Your task to perform on an android device: toggle location history Image 0: 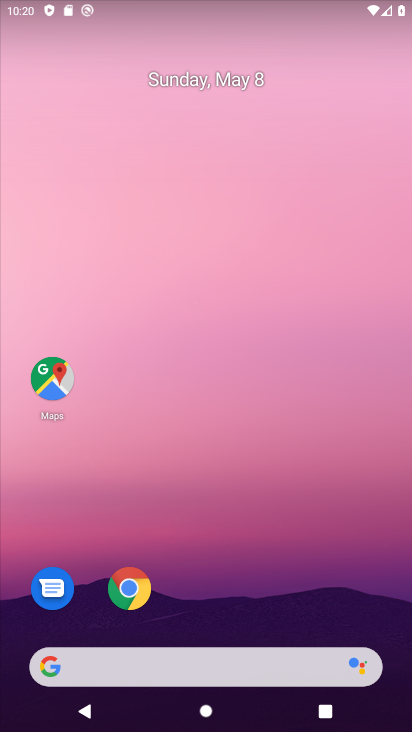
Step 0: drag from (289, 579) to (229, 53)
Your task to perform on an android device: toggle location history Image 1: 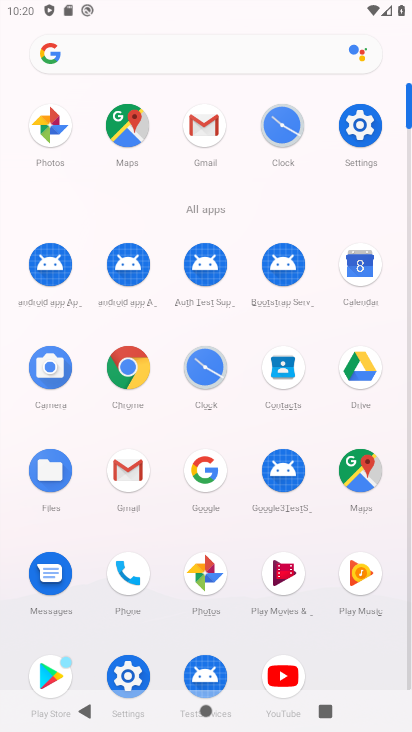
Step 1: click (365, 122)
Your task to perform on an android device: toggle location history Image 2: 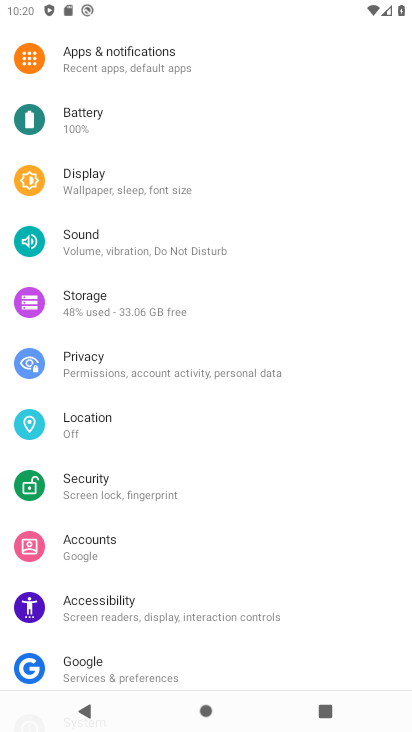
Step 2: click (131, 439)
Your task to perform on an android device: toggle location history Image 3: 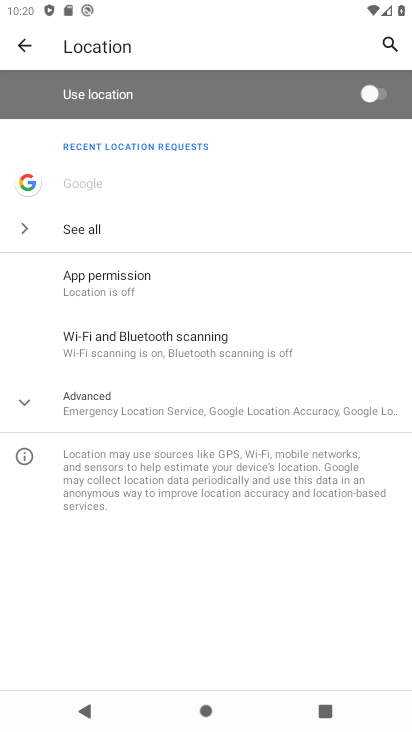
Step 3: click (162, 407)
Your task to perform on an android device: toggle location history Image 4: 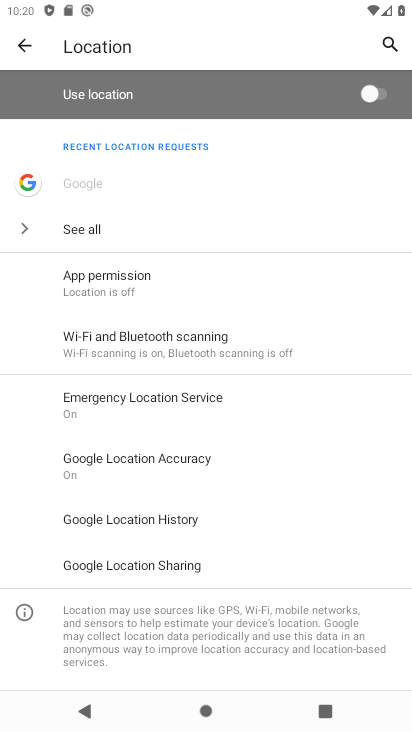
Step 4: click (196, 516)
Your task to perform on an android device: toggle location history Image 5: 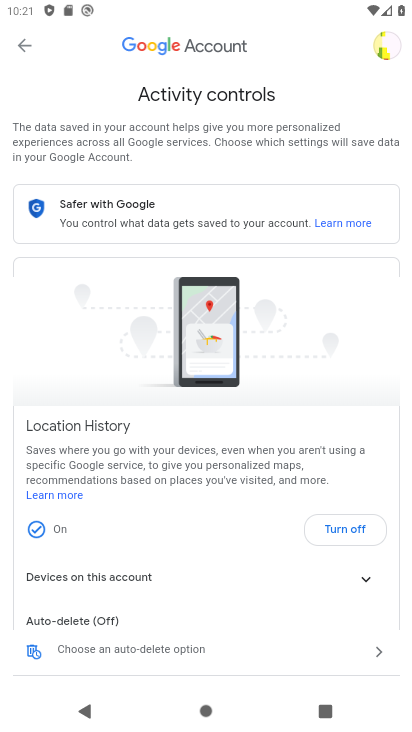
Step 5: click (348, 529)
Your task to perform on an android device: toggle location history Image 6: 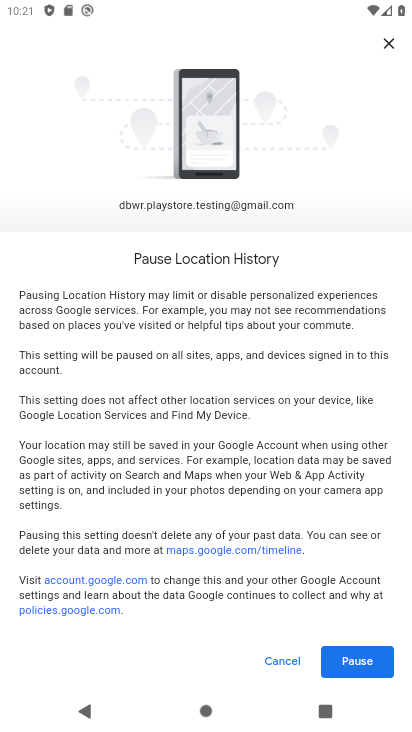
Step 6: click (363, 661)
Your task to perform on an android device: toggle location history Image 7: 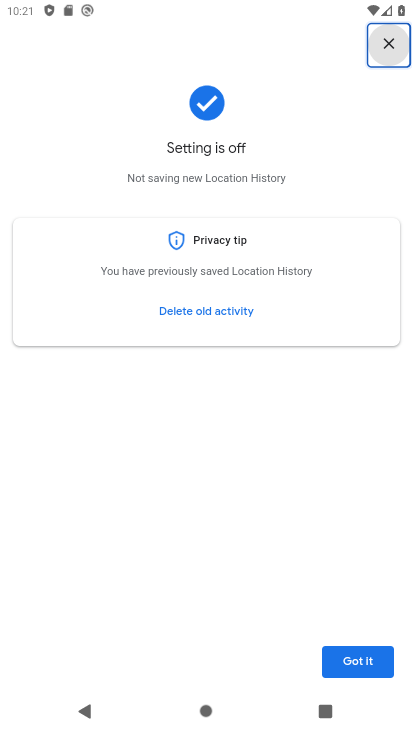
Step 7: click (378, 661)
Your task to perform on an android device: toggle location history Image 8: 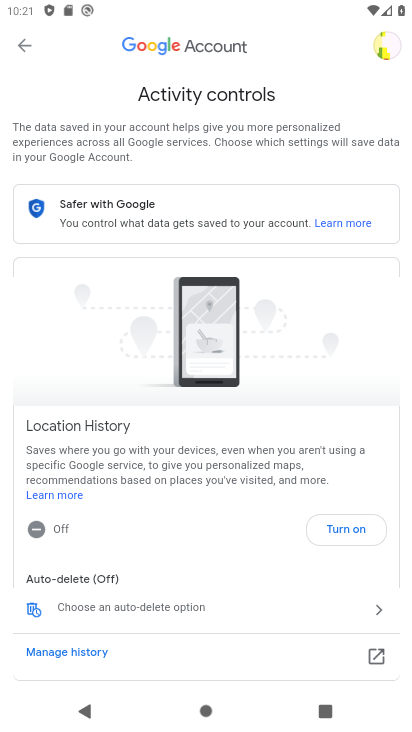
Step 8: task complete